Your task to perform on an android device: Go to Yahoo.com Image 0: 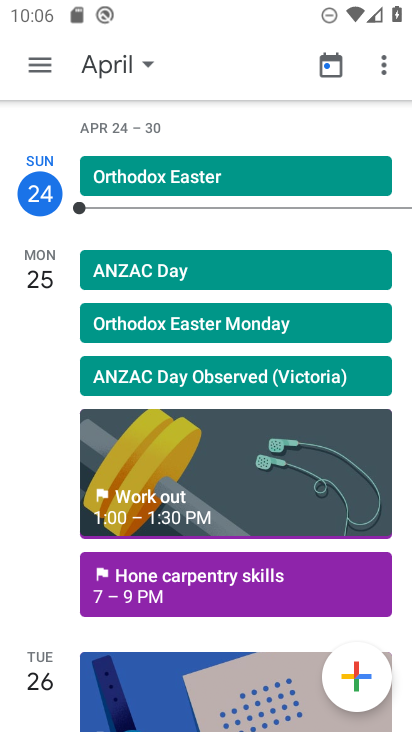
Step 0: press home button
Your task to perform on an android device: Go to Yahoo.com Image 1: 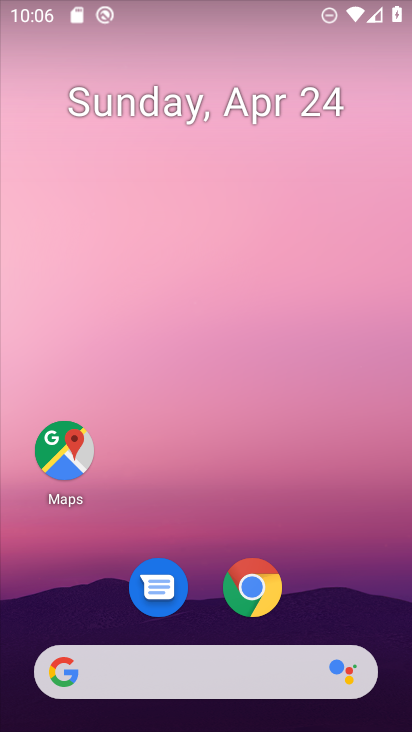
Step 1: drag from (369, 587) to (297, 99)
Your task to perform on an android device: Go to Yahoo.com Image 2: 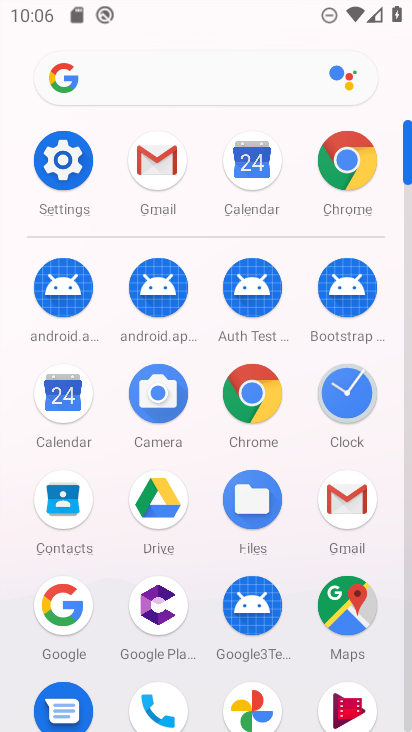
Step 2: click (249, 394)
Your task to perform on an android device: Go to Yahoo.com Image 3: 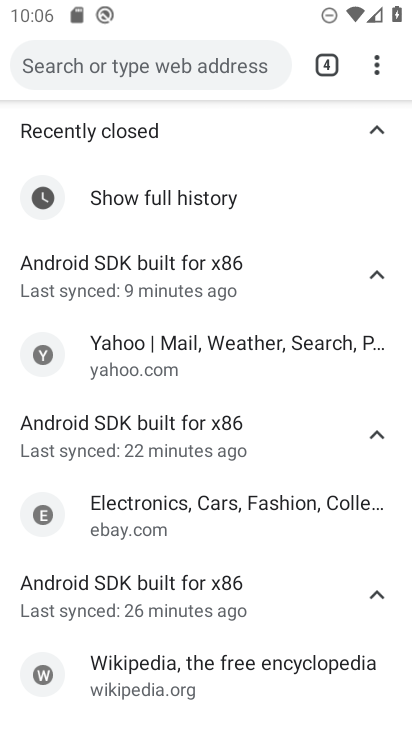
Step 3: click (229, 78)
Your task to perform on an android device: Go to Yahoo.com Image 4: 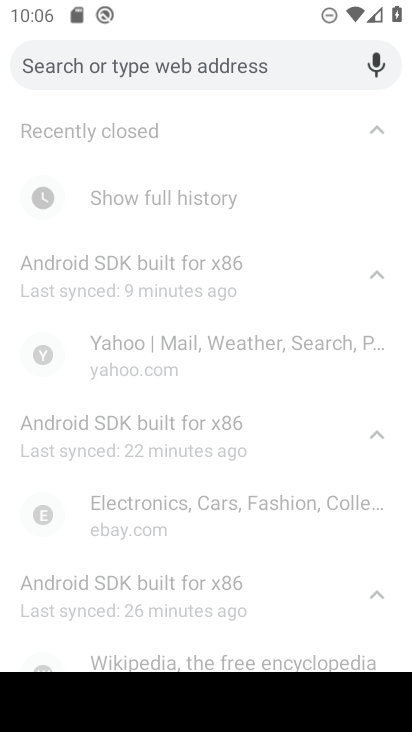
Step 4: type "yahoo.com"
Your task to perform on an android device: Go to Yahoo.com Image 5: 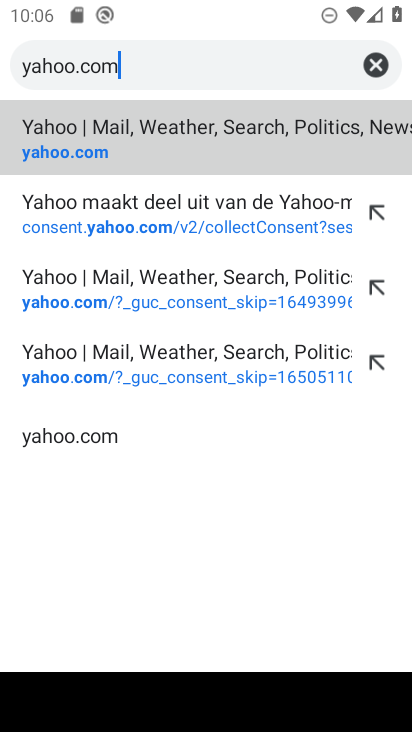
Step 5: click (91, 143)
Your task to perform on an android device: Go to Yahoo.com Image 6: 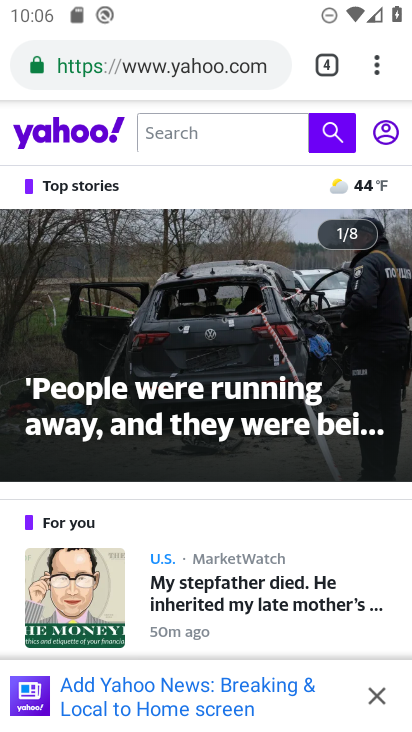
Step 6: click (380, 690)
Your task to perform on an android device: Go to Yahoo.com Image 7: 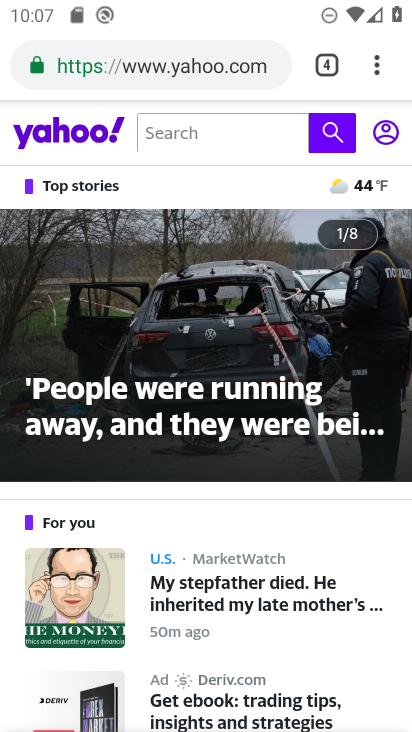
Step 7: task complete